Your task to perform on an android device: Open display settings Image 0: 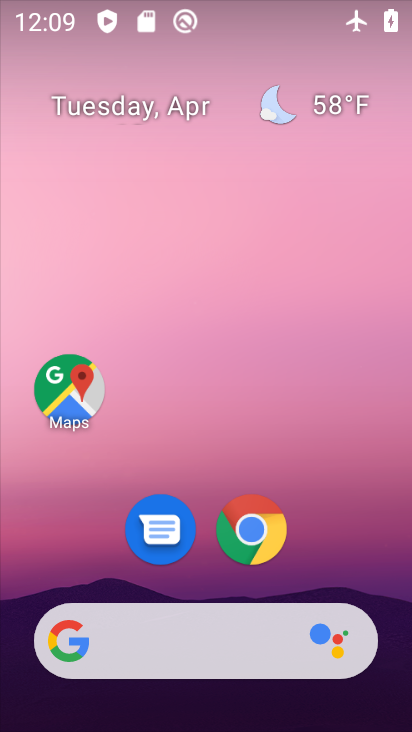
Step 0: drag from (362, 569) to (333, 290)
Your task to perform on an android device: Open display settings Image 1: 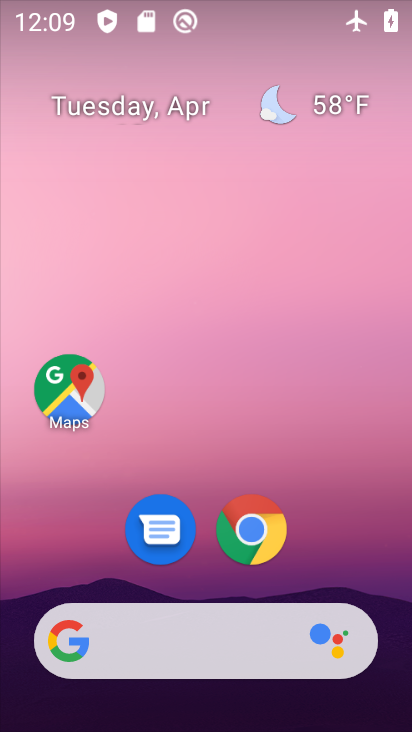
Step 1: drag from (339, 550) to (333, 46)
Your task to perform on an android device: Open display settings Image 2: 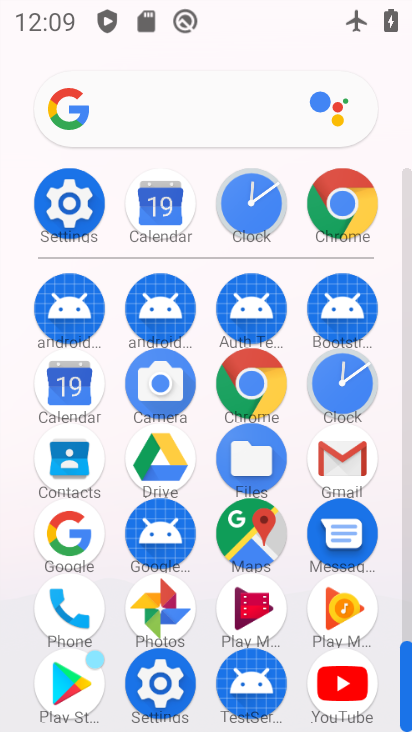
Step 2: click (86, 201)
Your task to perform on an android device: Open display settings Image 3: 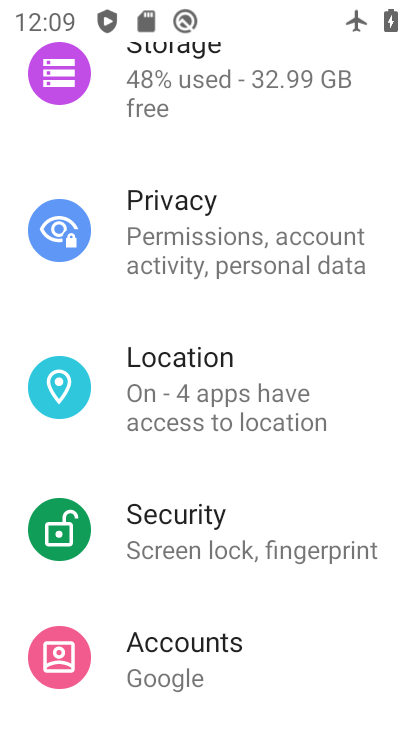
Step 3: drag from (247, 190) to (278, 647)
Your task to perform on an android device: Open display settings Image 4: 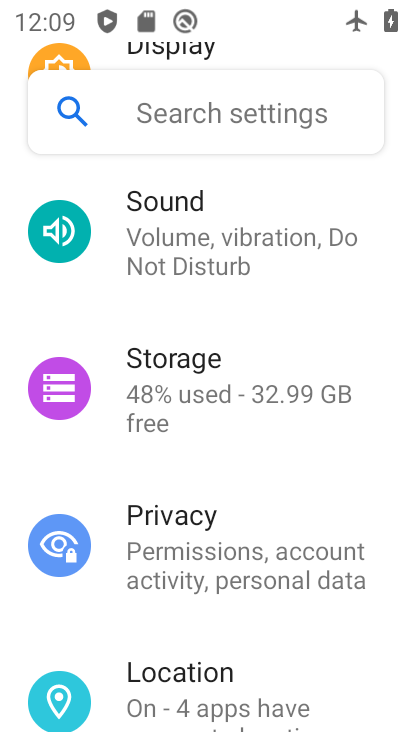
Step 4: drag from (269, 246) to (233, 579)
Your task to perform on an android device: Open display settings Image 5: 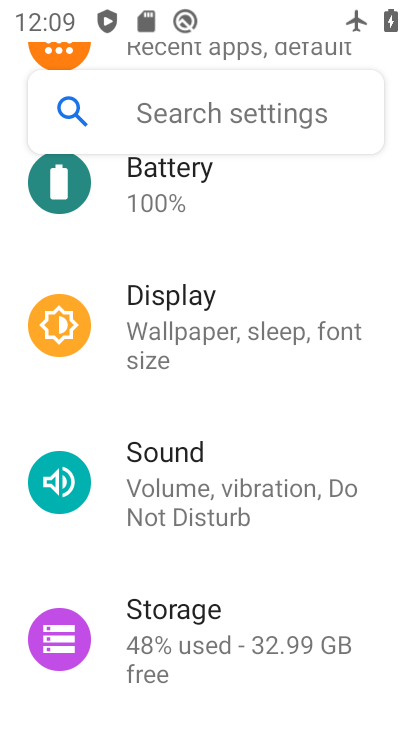
Step 5: click (228, 325)
Your task to perform on an android device: Open display settings Image 6: 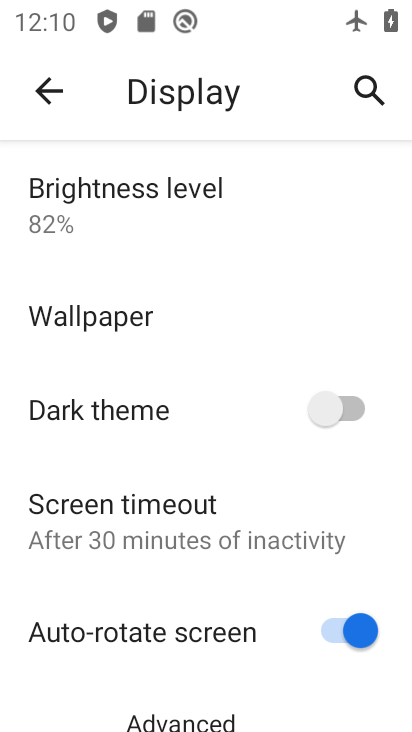
Step 6: task complete